Your task to perform on an android device: find snoozed emails in the gmail app Image 0: 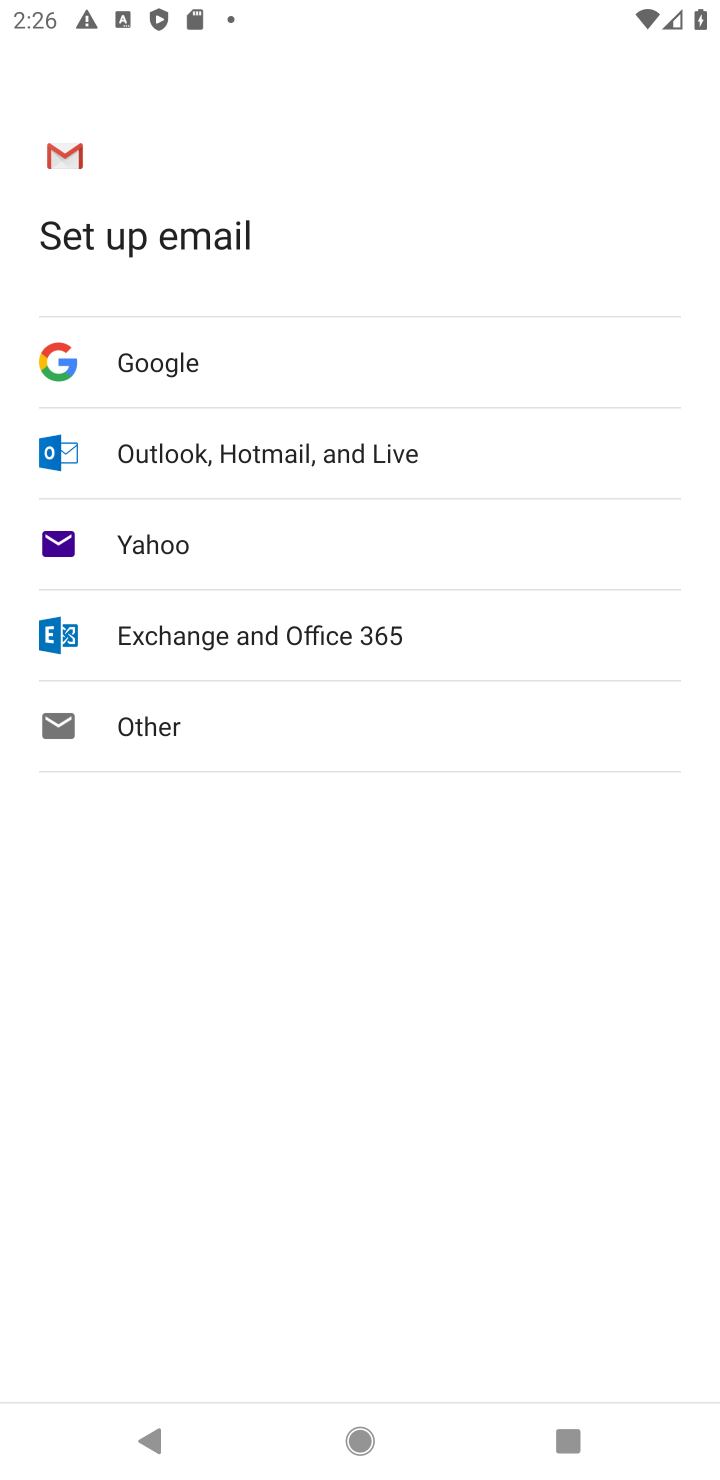
Step 0: press home button
Your task to perform on an android device: find snoozed emails in the gmail app Image 1: 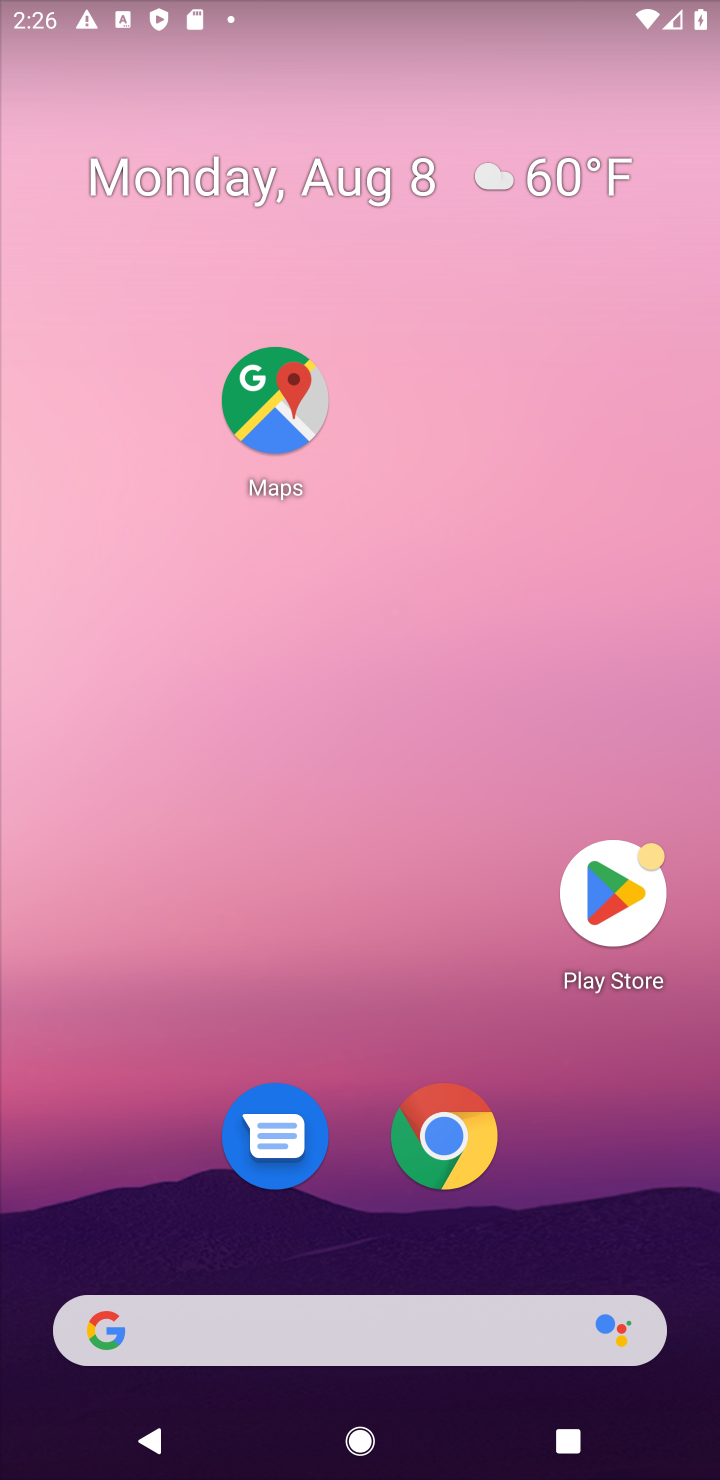
Step 1: drag from (241, 888) to (410, 492)
Your task to perform on an android device: find snoozed emails in the gmail app Image 2: 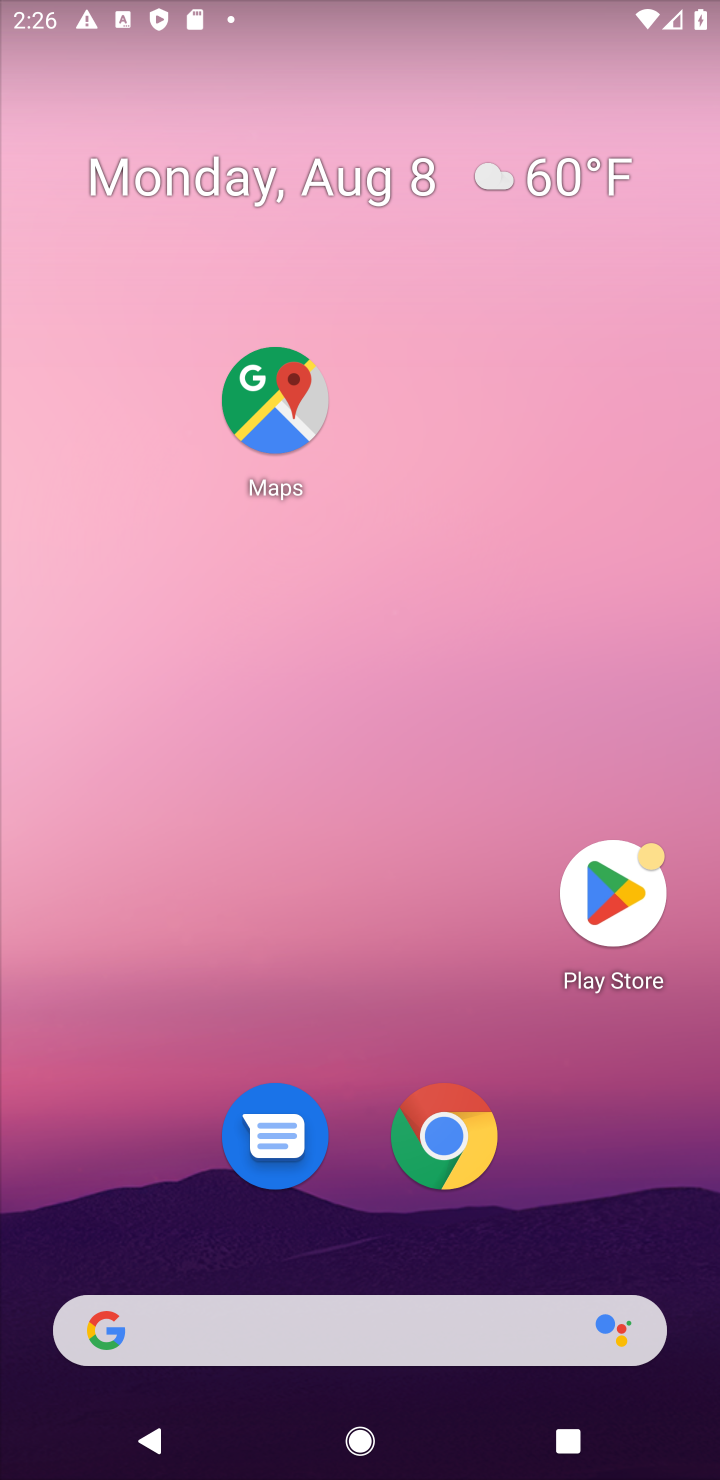
Step 2: drag from (49, 1380) to (531, 473)
Your task to perform on an android device: find snoozed emails in the gmail app Image 3: 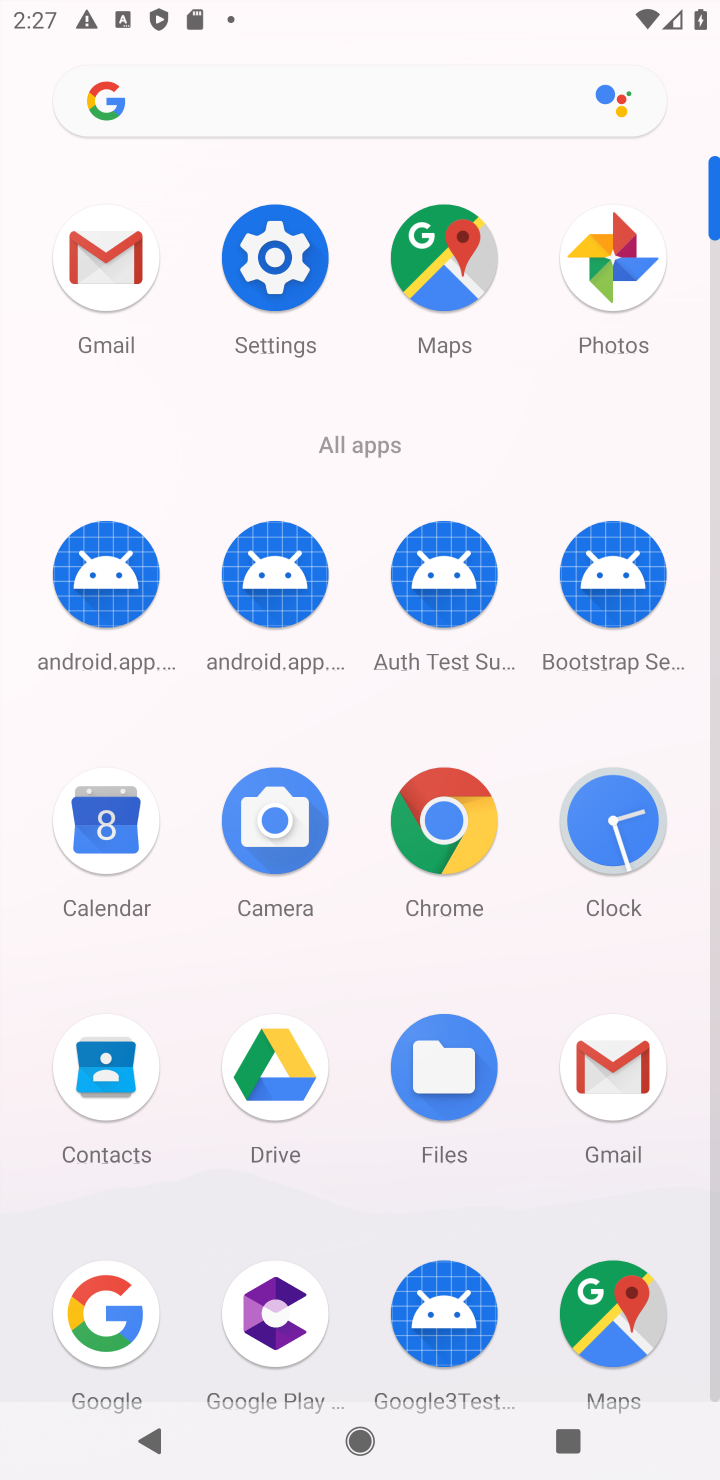
Step 3: click (620, 1076)
Your task to perform on an android device: find snoozed emails in the gmail app Image 4: 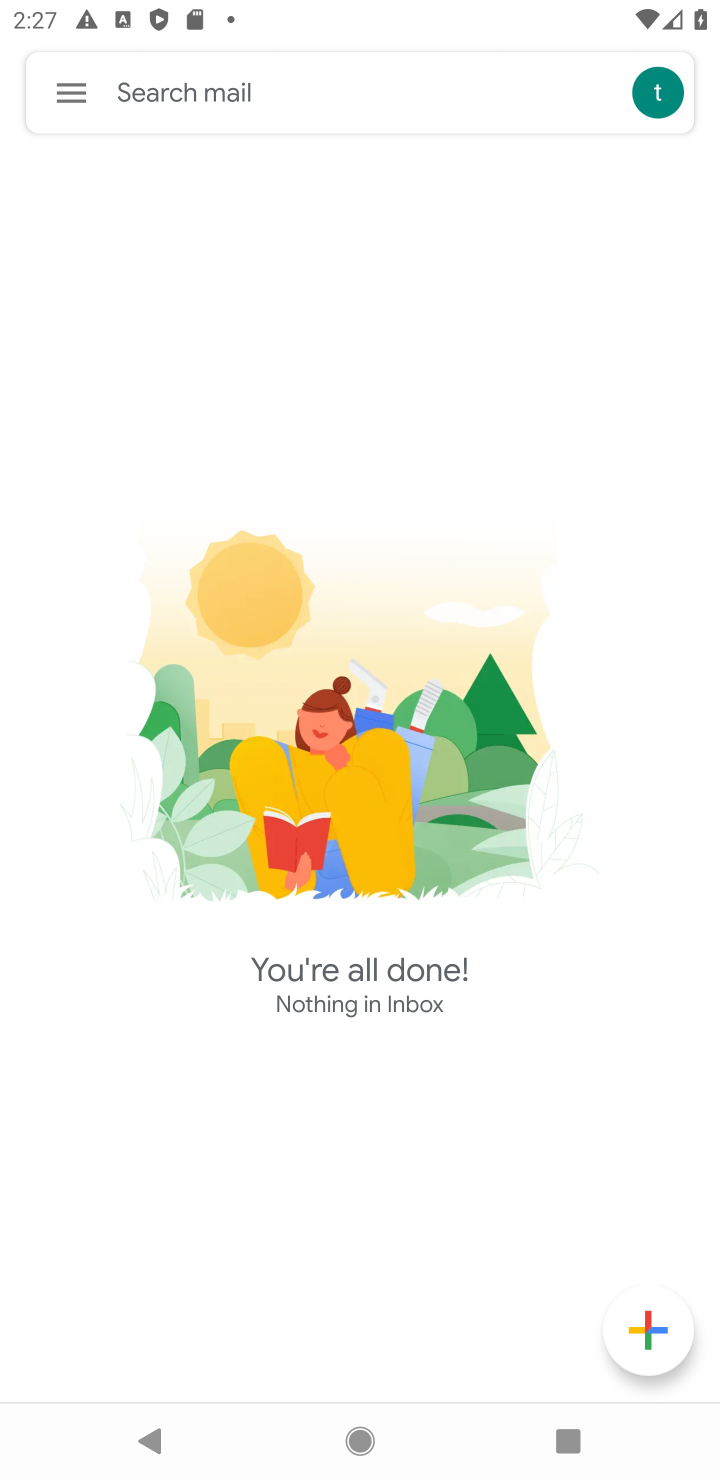
Step 4: click (72, 95)
Your task to perform on an android device: find snoozed emails in the gmail app Image 5: 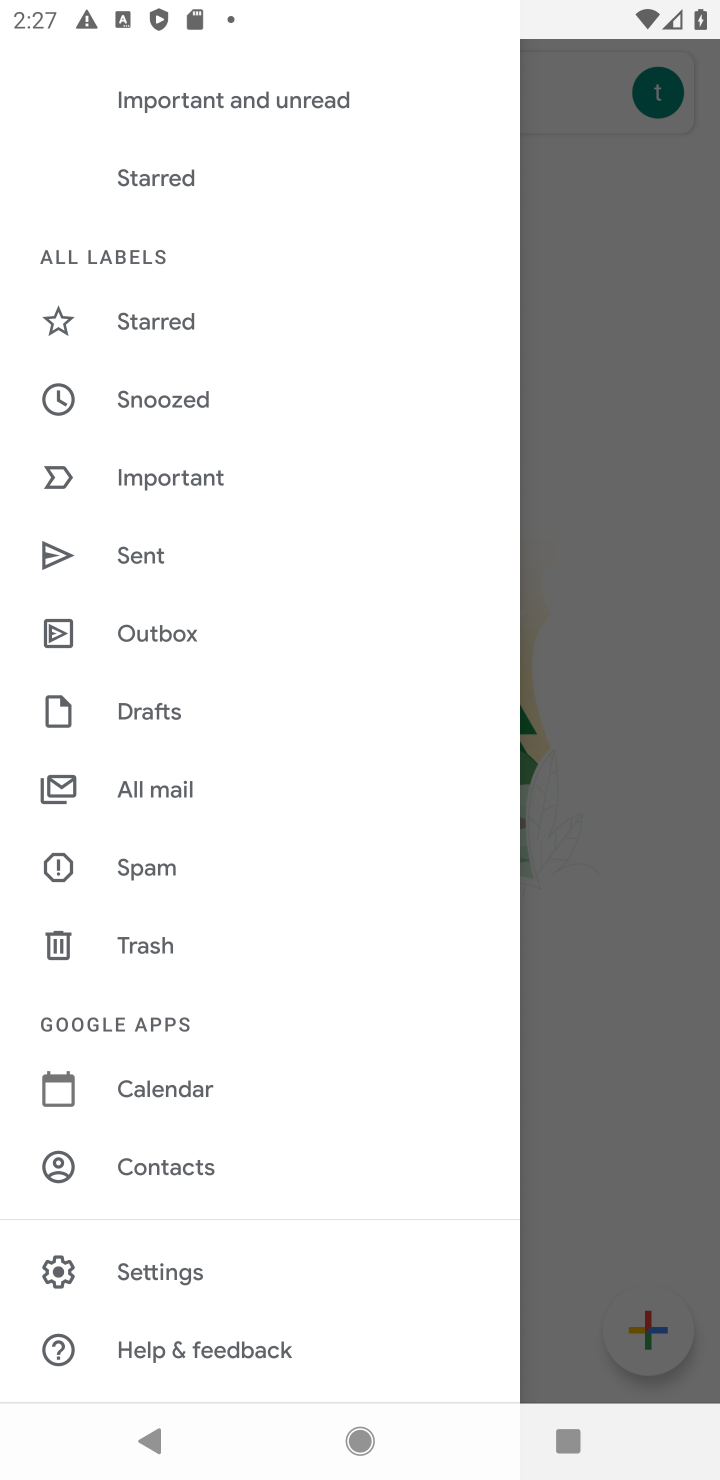
Step 5: click (166, 389)
Your task to perform on an android device: find snoozed emails in the gmail app Image 6: 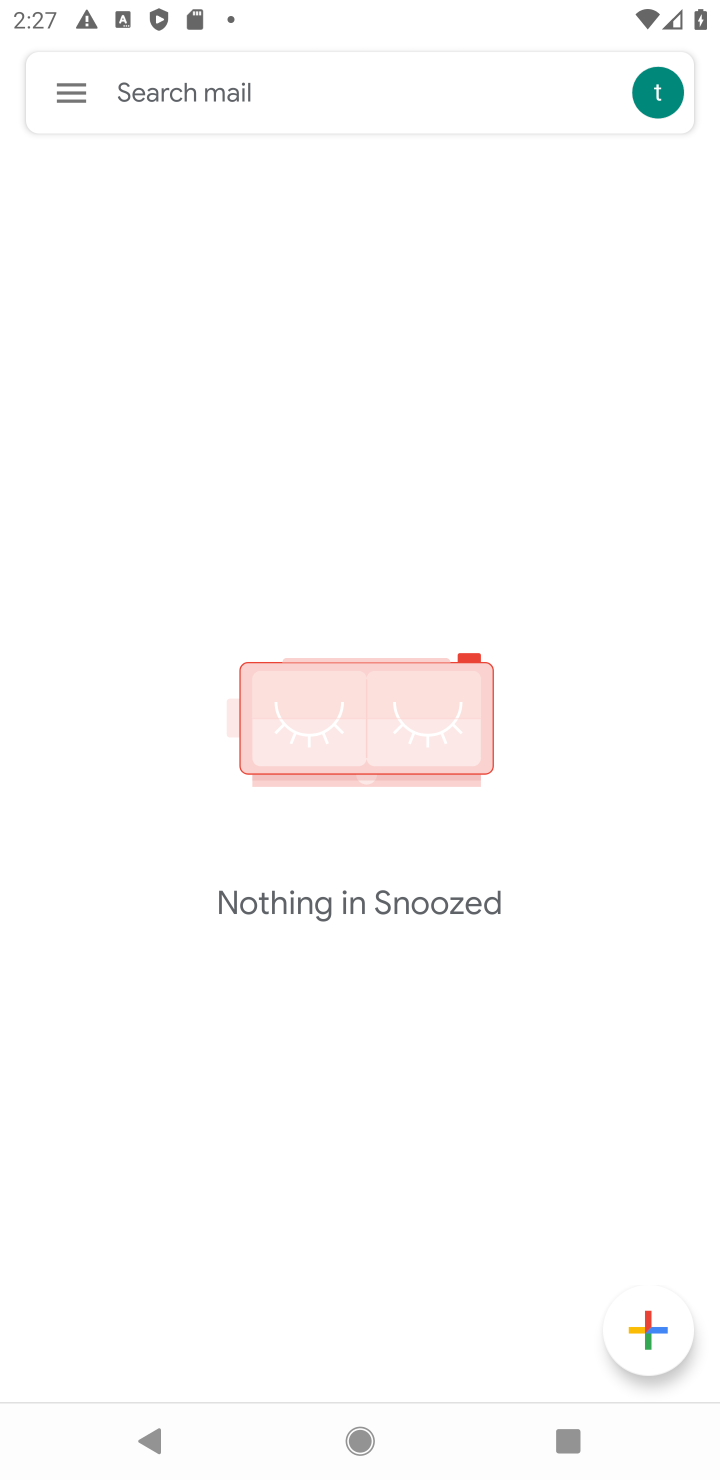
Step 6: task complete